Your task to perform on an android device: Open Google Maps and go to "Timeline" Image 0: 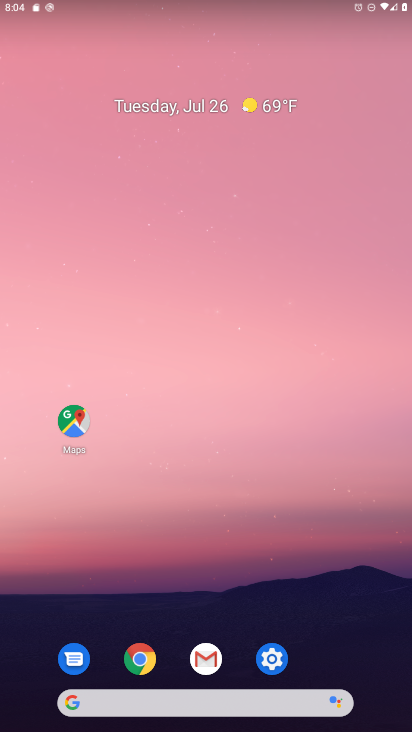
Step 0: drag from (222, 721) to (262, 186)
Your task to perform on an android device: Open Google Maps and go to "Timeline" Image 1: 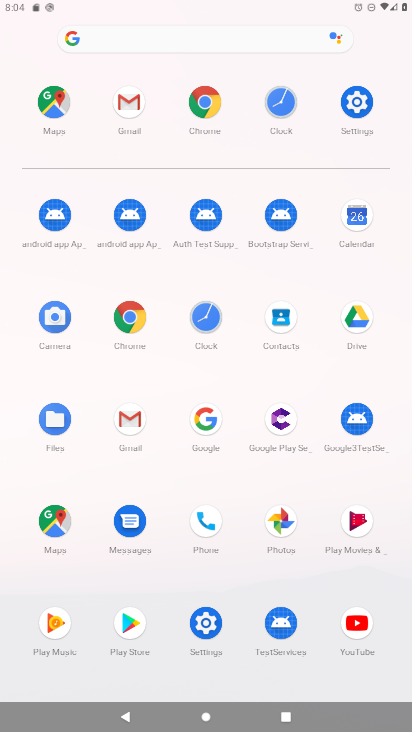
Step 1: click (56, 108)
Your task to perform on an android device: Open Google Maps and go to "Timeline" Image 2: 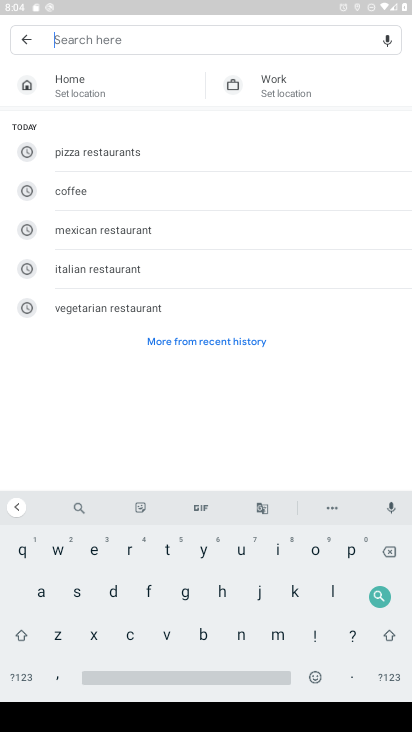
Step 2: click (22, 40)
Your task to perform on an android device: Open Google Maps and go to "Timeline" Image 3: 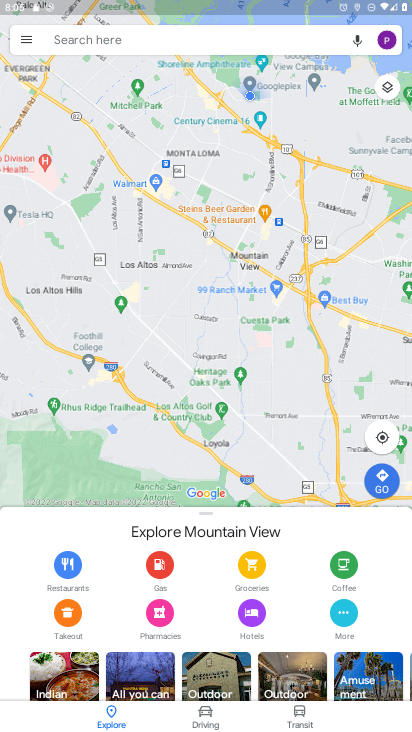
Step 3: click (24, 44)
Your task to perform on an android device: Open Google Maps and go to "Timeline" Image 4: 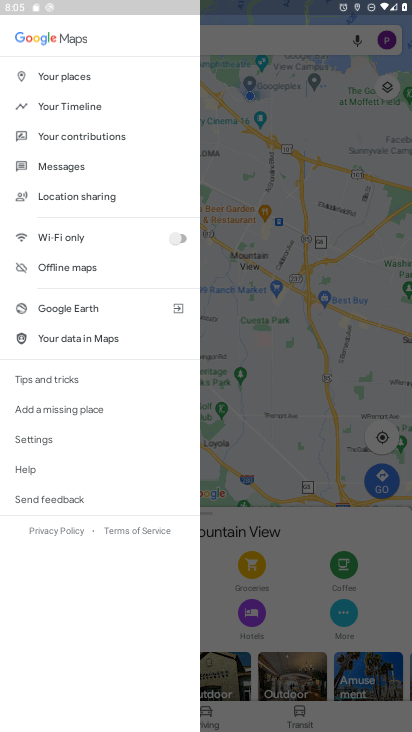
Step 4: click (70, 106)
Your task to perform on an android device: Open Google Maps and go to "Timeline" Image 5: 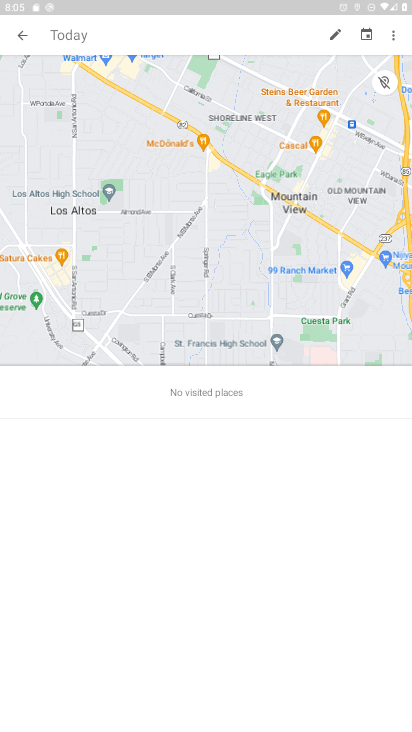
Step 5: task complete